Your task to perform on an android device: Show the shopping cart on bestbuy. Search for asus rog on bestbuy, select the first entry, and add it to the cart. Image 0: 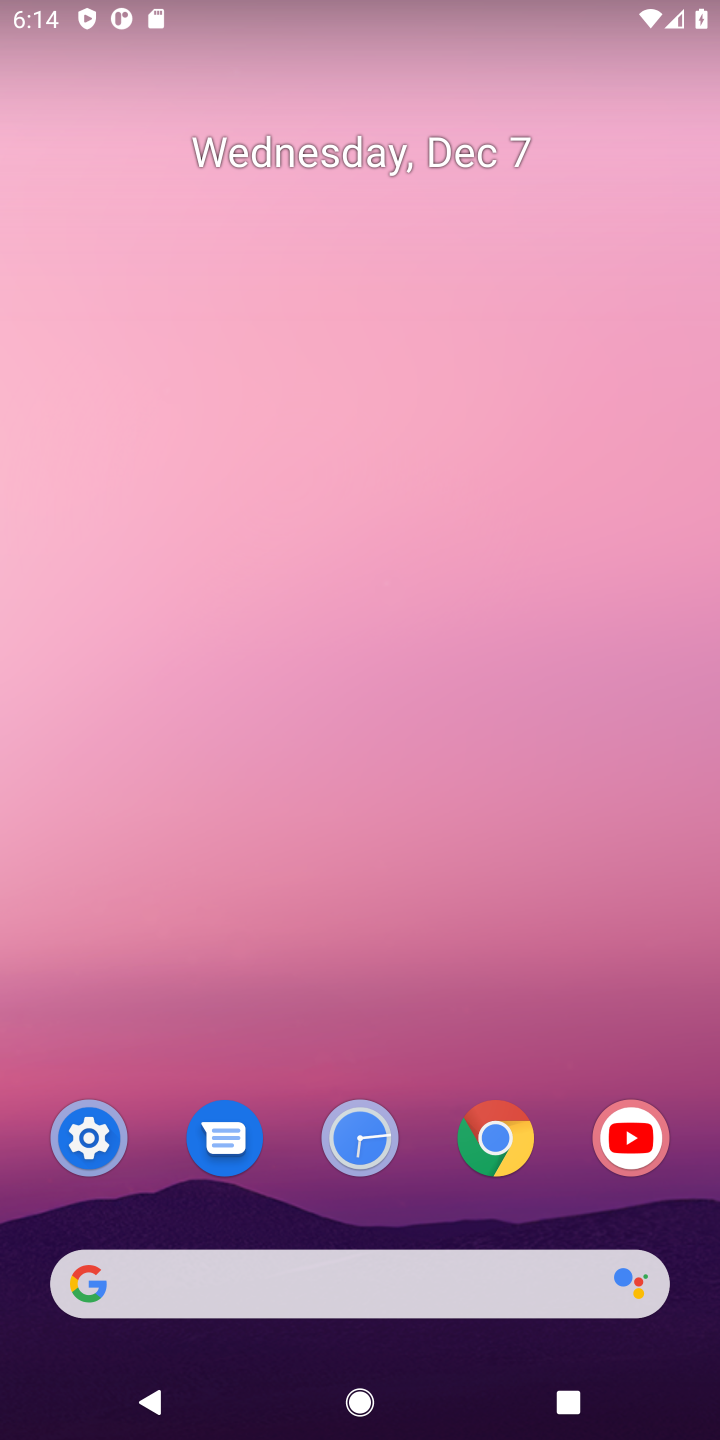
Step 0: press home button
Your task to perform on an android device: Show the shopping cart on bestbuy. Search for asus rog on bestbuy, select the first entry, and add it to the cart. Image 1: 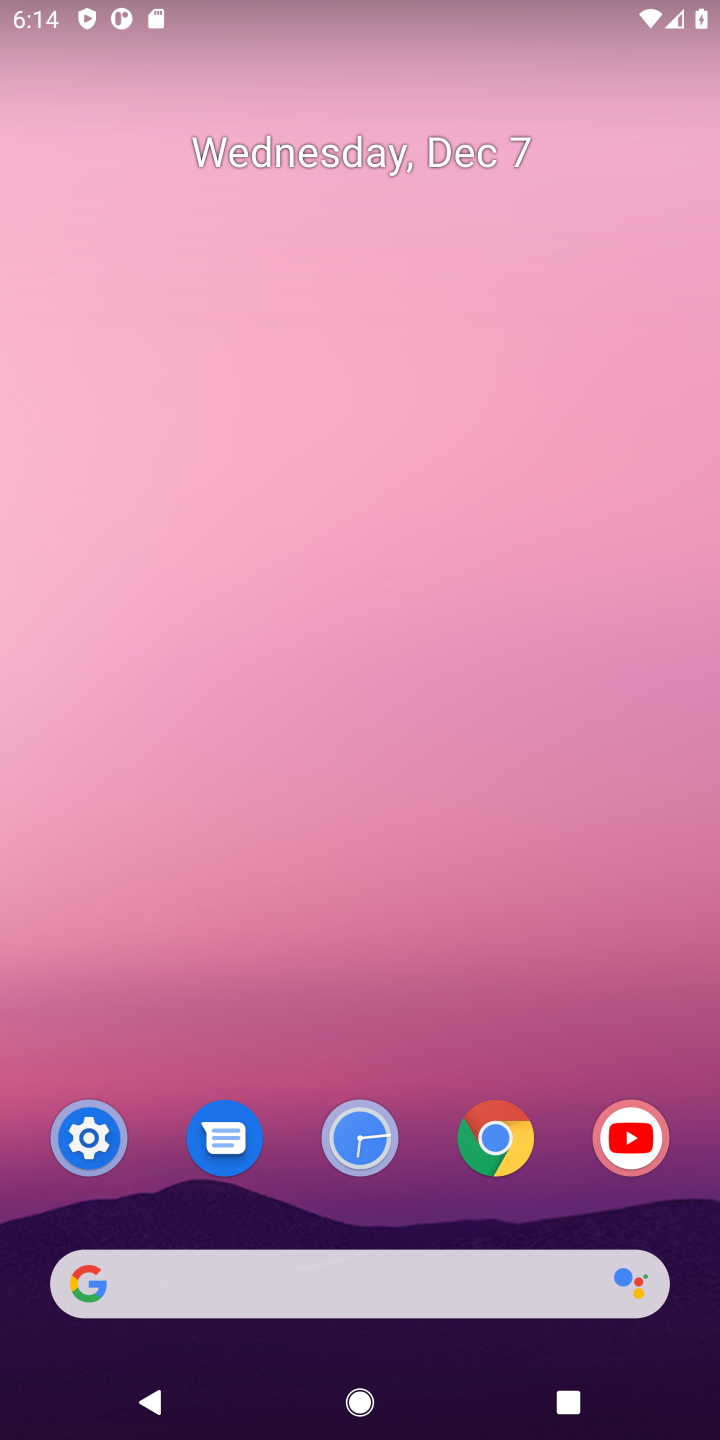
Step 1: click (162, 1282)
Your task to perform on an android device: Show the shopping cart on bestbuy. Search for asus rog on bestbuy, select the first entry, and add it to the cart. Image 2: 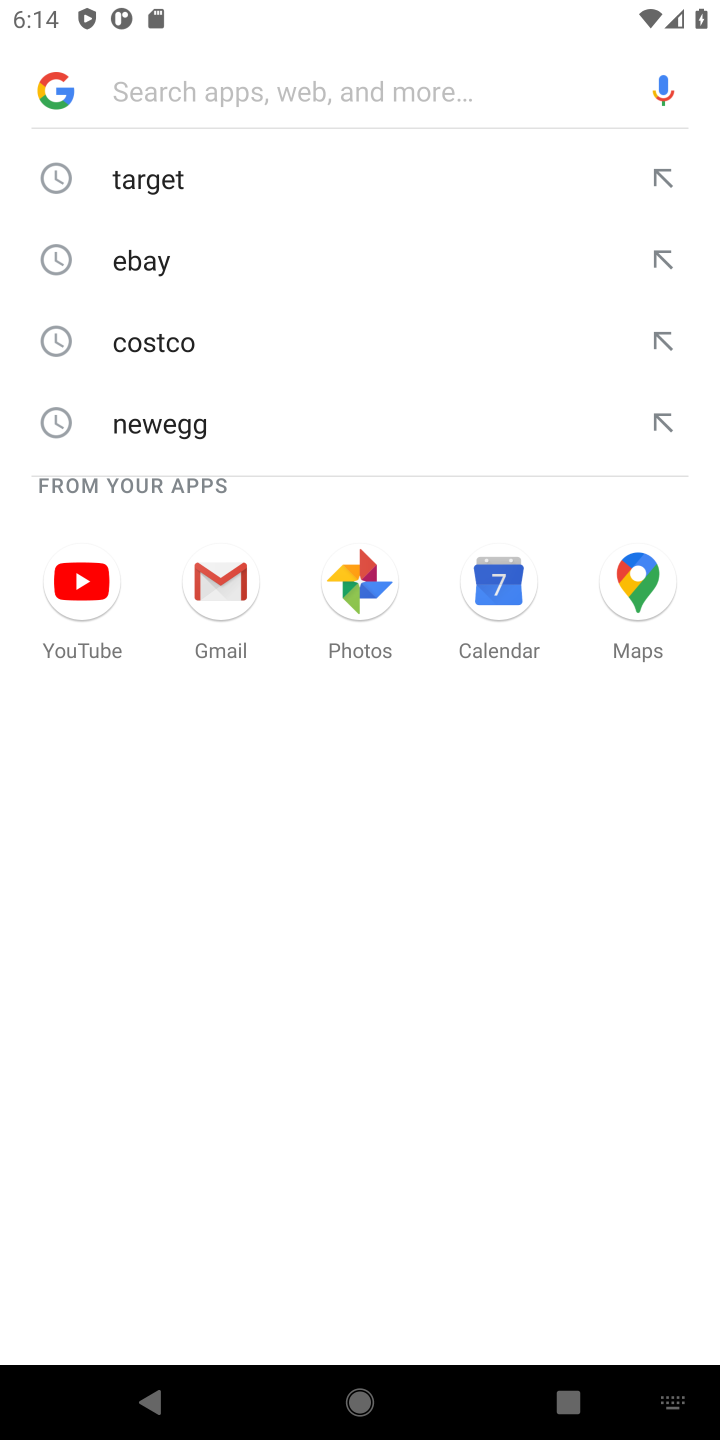
Step 2: type "bestbuy"
Your task to perform on an android device: Show the shopping cart on bestbuy. Search for asus rog on bestbuy, select the first entry, and add it to the cart. Image 3: 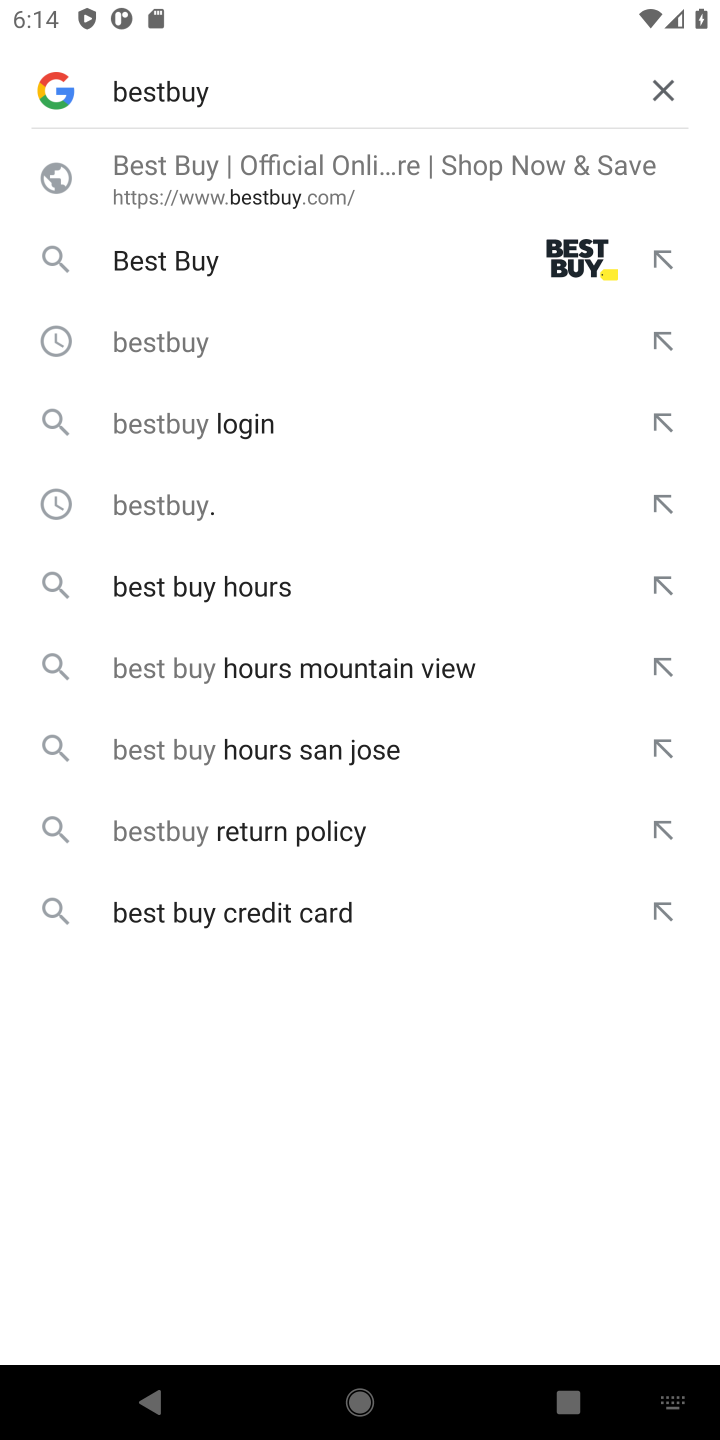
Step 3: press enter
Your task to perform on an android device: Show the shopping cart on bestbuy. Search for asus rog on bestbuy, select the first entry, and add it to the cart. Image 4: 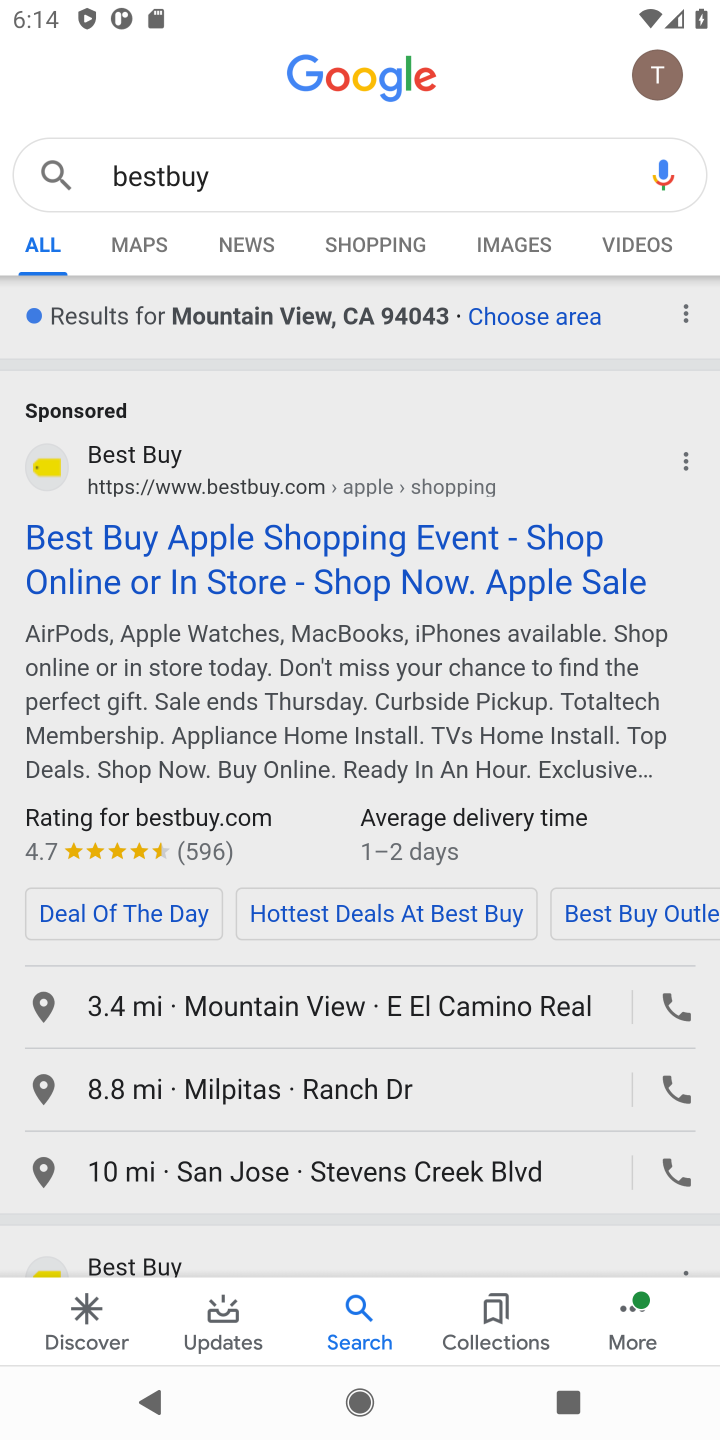
Step 4: click (374, 552)
Your task to perform on an android device: Show the shopping cart on bestbuy. Search for asus rog on bestbuy, select the first entry, and add it to the cart. Image 5: 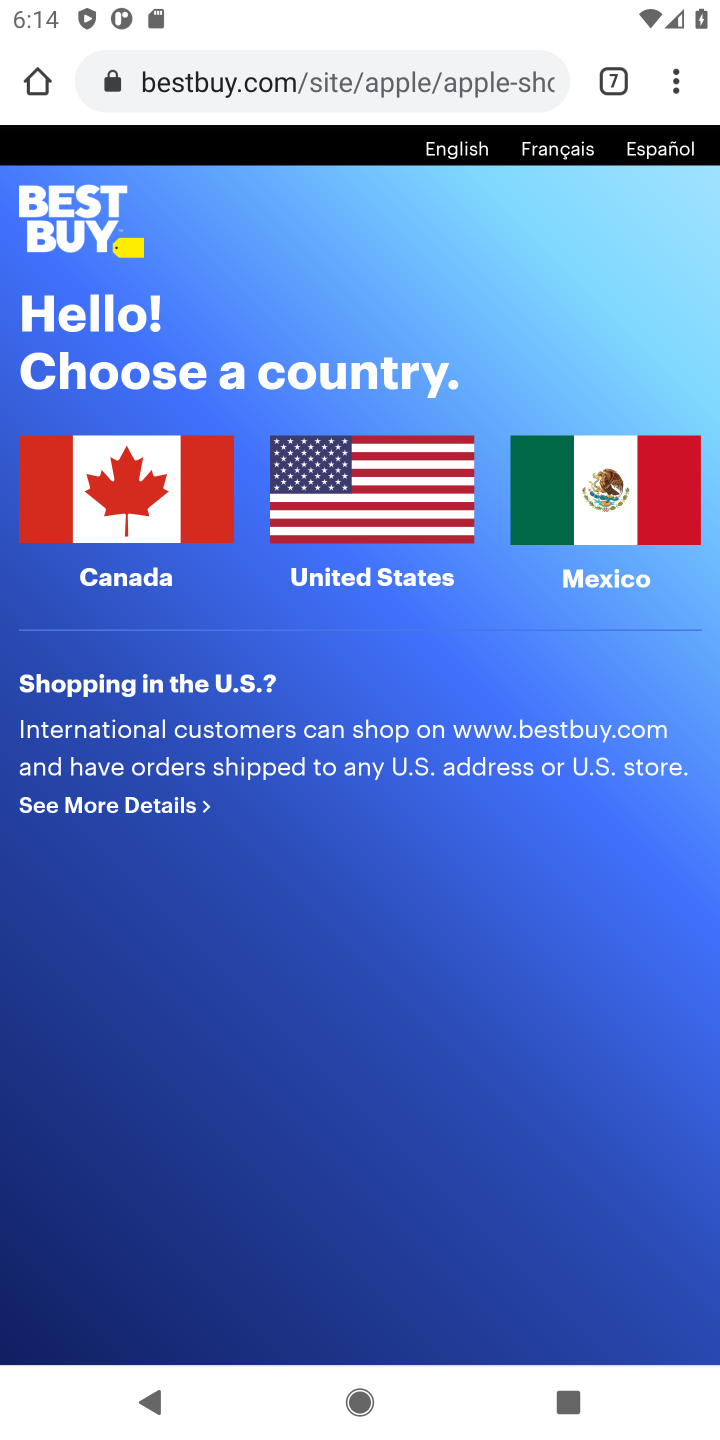
Step 5: click (113, 516)
Your task to perform on an android device: Show the shopping cart on bestbuy. Search for asus rog on bestbuy, select the first entry, and add it to the cart. Image 6: 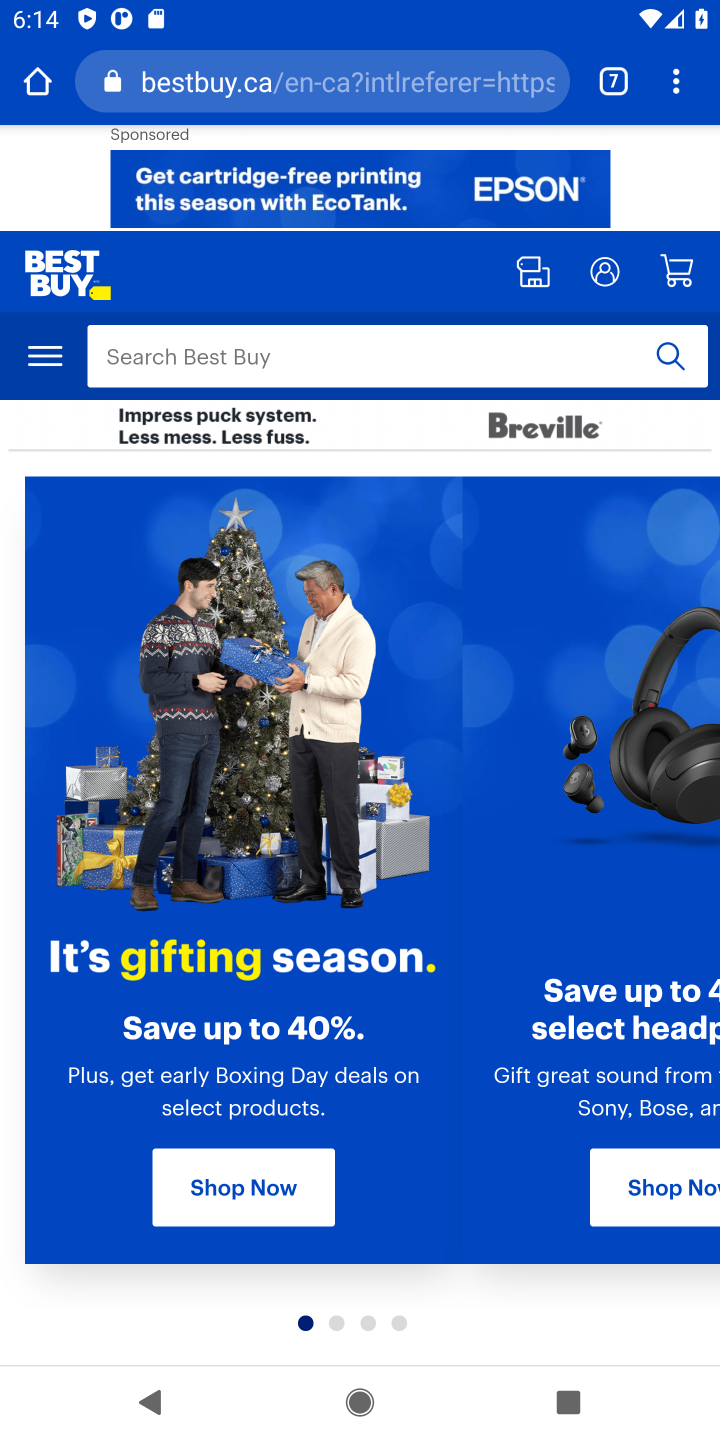
Step 6: click (667, 259)
Your task to perform on an android device: Show the shopping cart on bestbuy. Search for asus rog on bestbuy, select the first entry, and add it to the cart. Image 7: 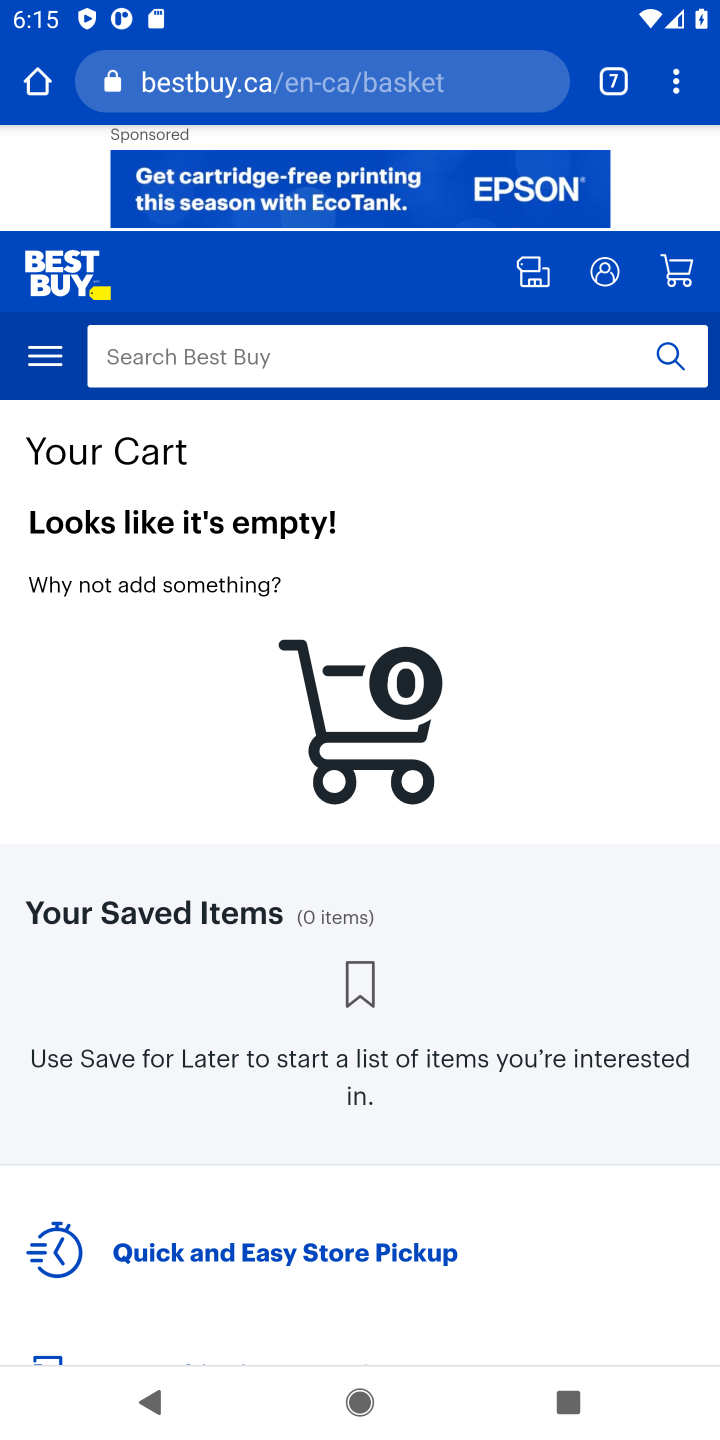
Step 7: click (373, 368)
Your task to perform on an android device: Show the shopping cart on bestbuy. Search for asus rog on bestbuy, select the first entry, and add it to the cart. Image 8: 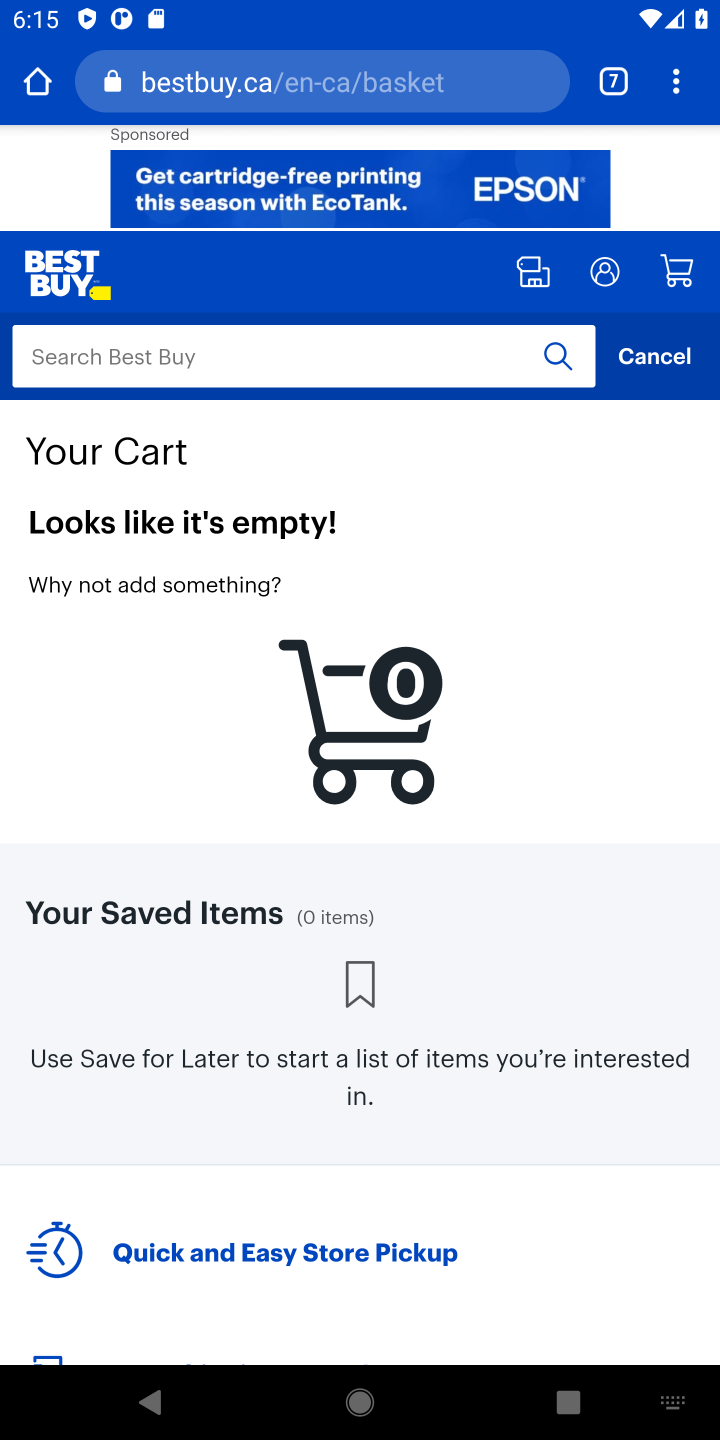
Step 8: type "asus rog"
Your task to perform on an android device: Show the shopping cart on bestbuy. Search for asus rog on bestbuy, select the first entry, and add it to the cart. Image 9: 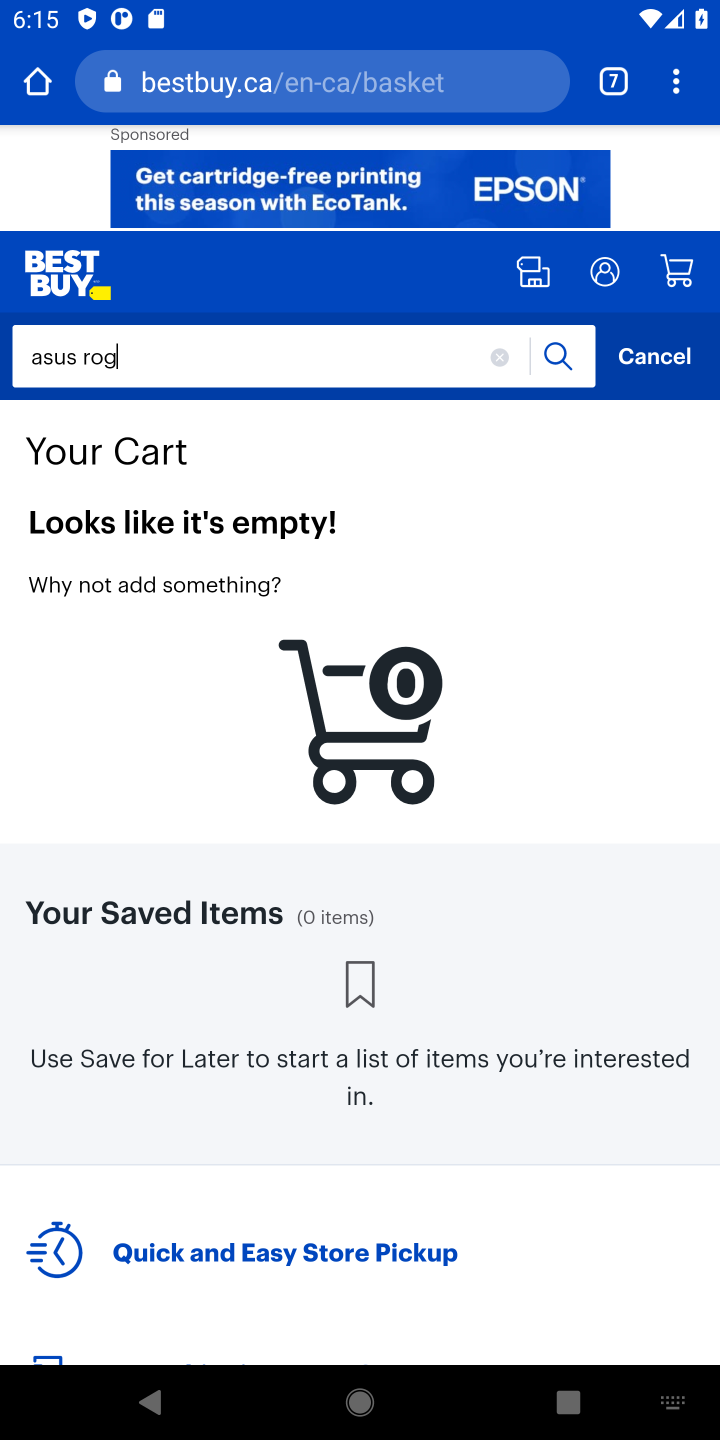
Step 9: press enter
Your task to perform on an android device: Show the shopping cart on bestbuy. Search for asus rog on bestbuy, select the first entry, and add it to the cart. Image 10: 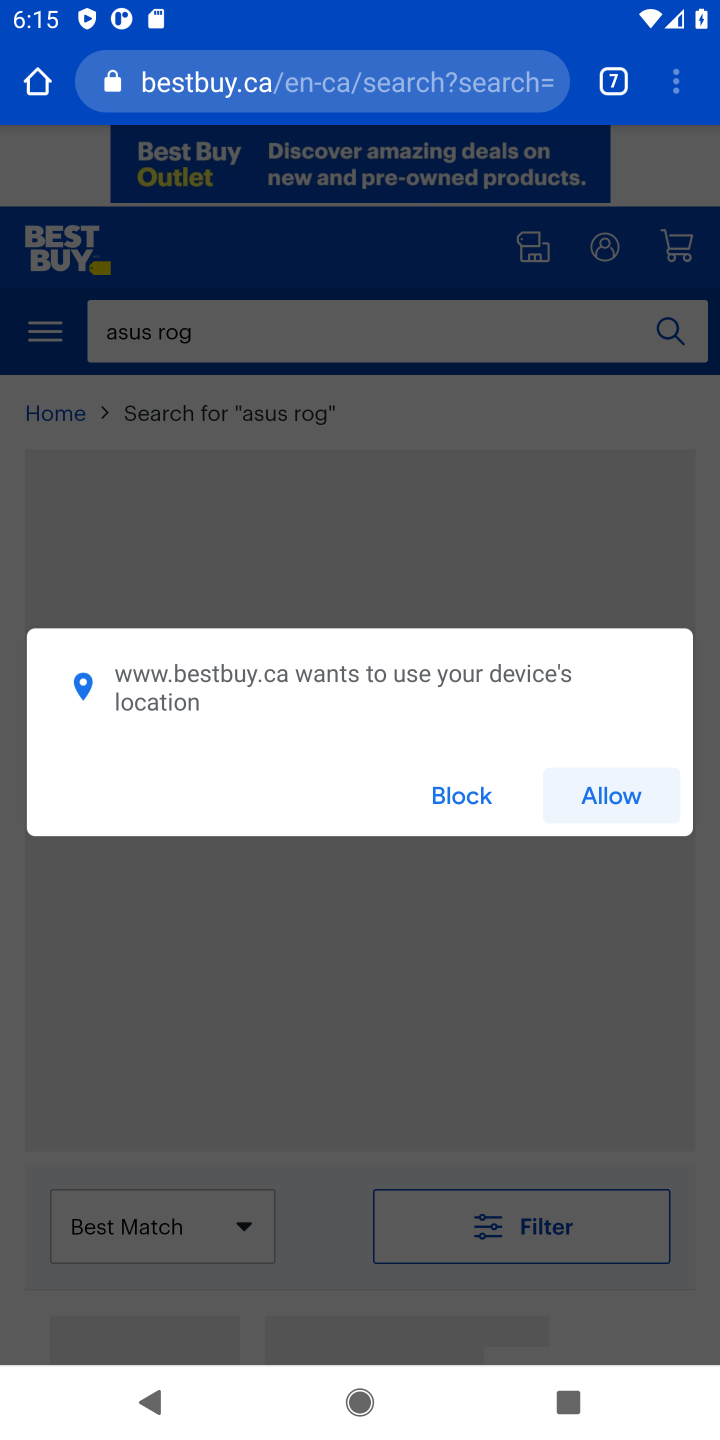
Step 10: click (419, 803)
Your task to perform on an android device: Show the shopping cart on bestbuy. Search for asus rog on bestbuy, select the first entry, and add it to the cart. Image 11: 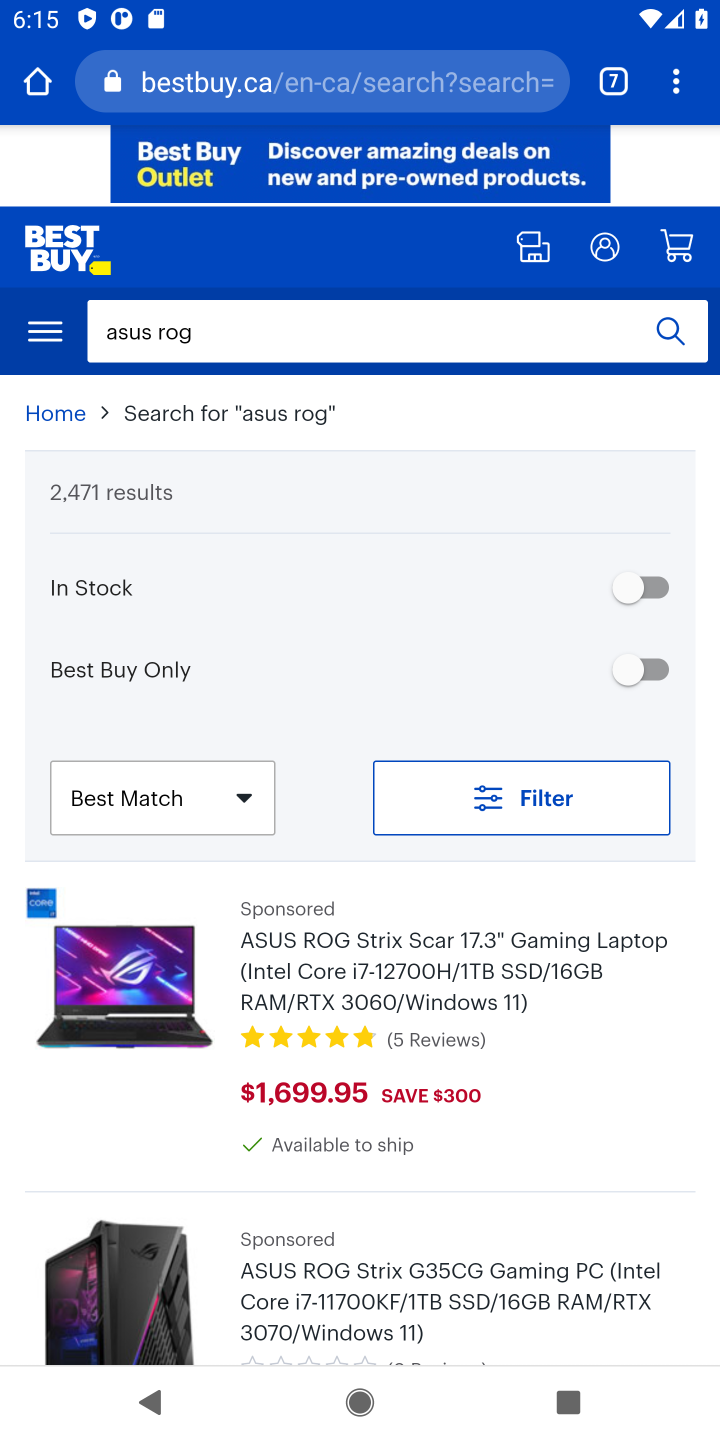
Step 11: drag from (465, 1094) to (532, 662)
Your task to perform on an android device: Show the shopping cart on bestbuy. Search for asus rog on bestbuy, select the first entry, and add it to the cart. Image 12: 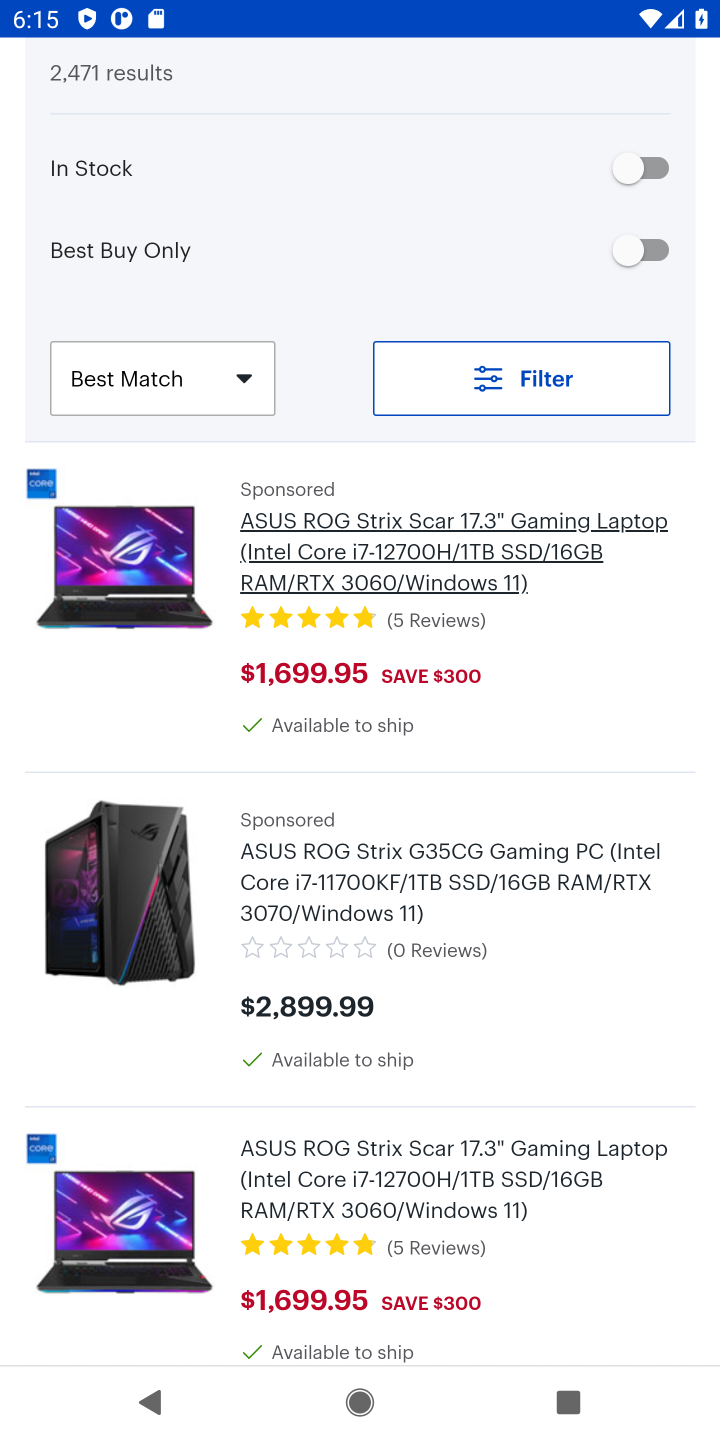
Step 12: click (358, 546)
Your task to perform on an android device: Show the shopping cart on bestbuy. Search for asus rog on bestbuy, select the first entry, and add it to the cart. Image 13: 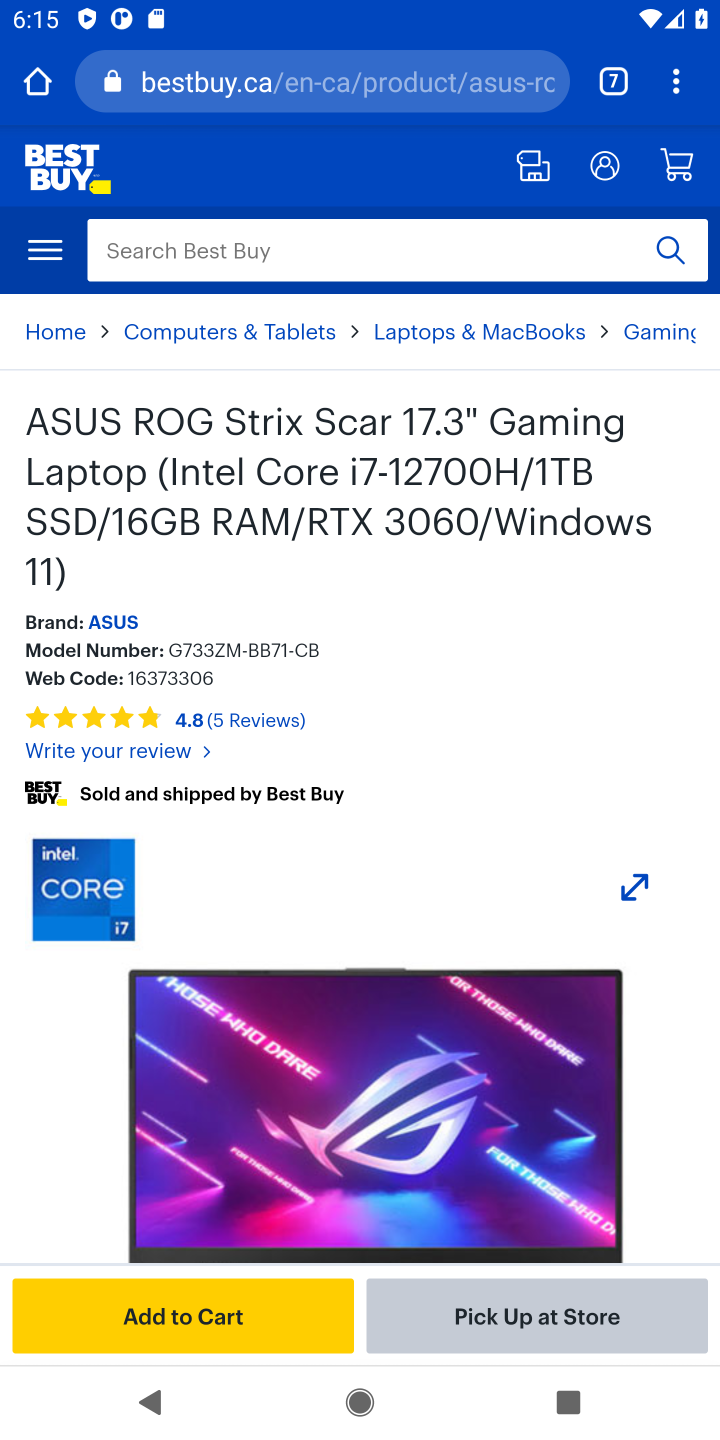
Step 13: click (194, 1320)
Your task to perform on an android device: Show the shopping cart on bestbuy. Search for asus rog on bestbuy, select the first entry, and add it to the cart. Image 14: 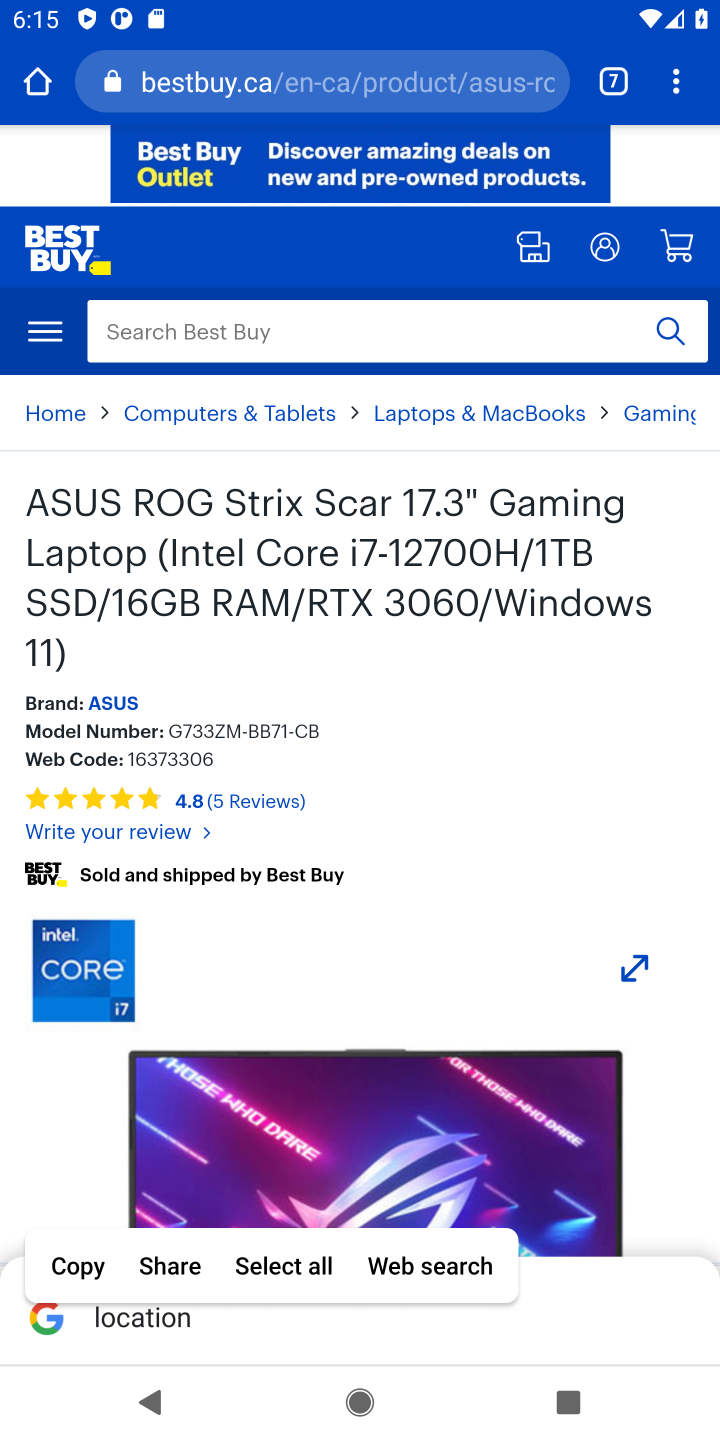
Step 14: drag from (506, 997) to (558, 496)
Your task to perform on an android device: Show the shopping cart on bestbuy. Search for asus rog on bestbuy, select the first entry, and add it to the cart. Image 15: 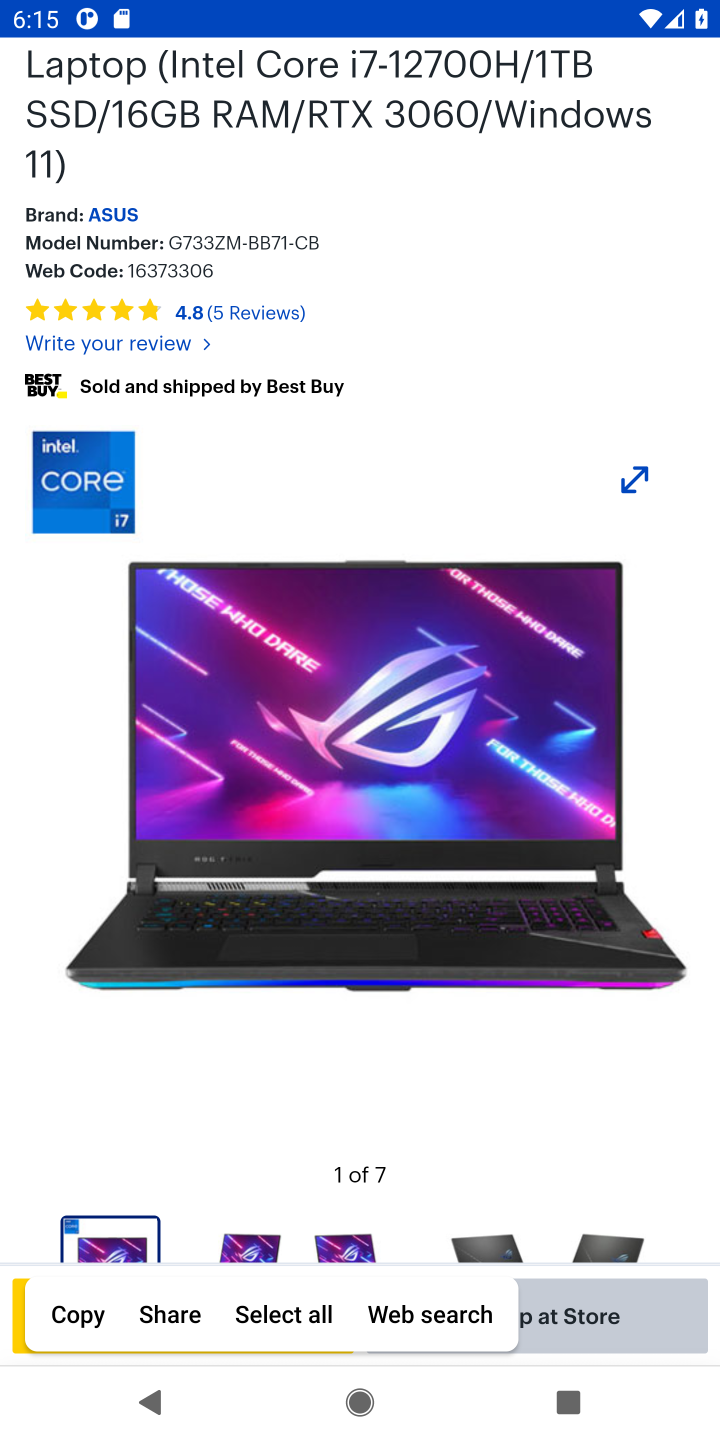
Step 15: drag from (183, 989) to (254, 677)
Your task to perform on an android device: Show the shopping cart on bestbuy. Search for asus rog on bestbuy, select the first entry, and add it to the cart. Image 16: 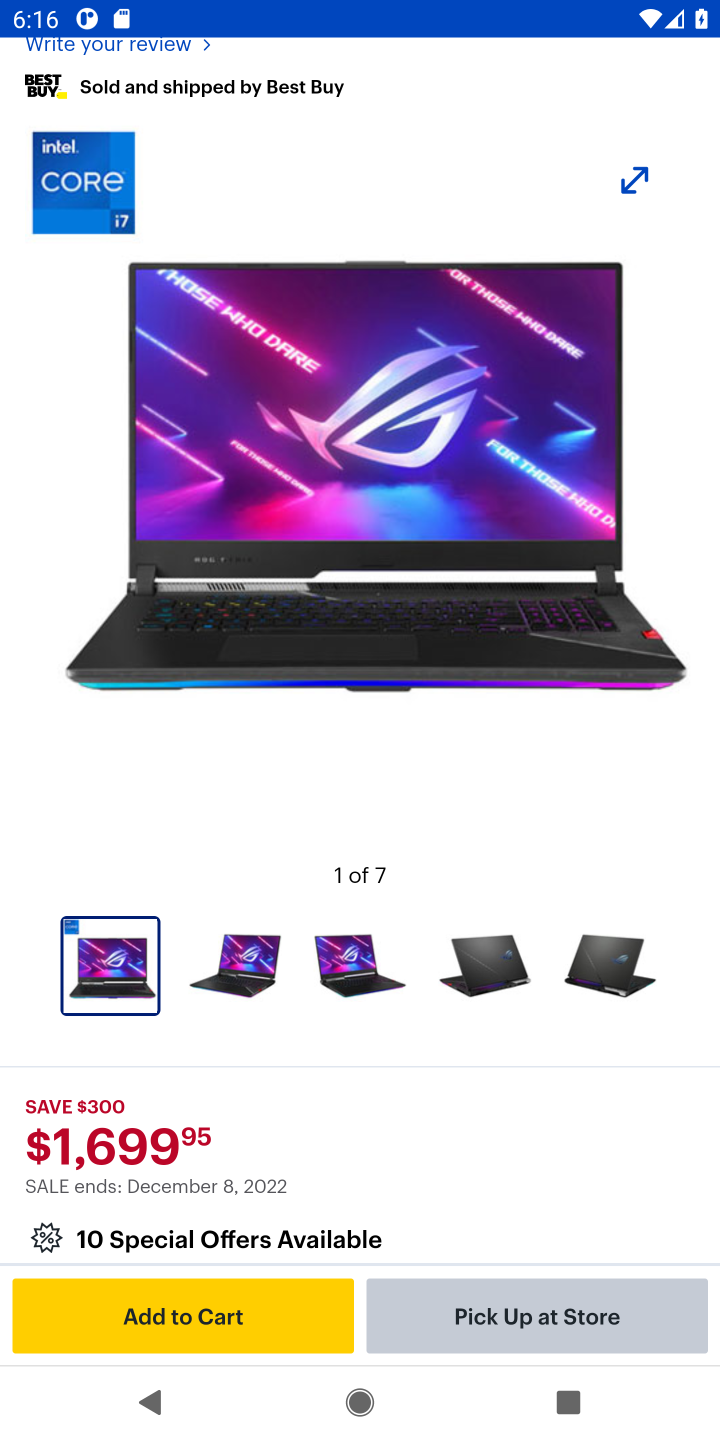
Step 16: click (174, 1308)
Your task to perform on an android device: Show the shopping cart on bestbuy. Search for asus rog on bestbuy, select the first entry, and add it to the cart. Image 17: 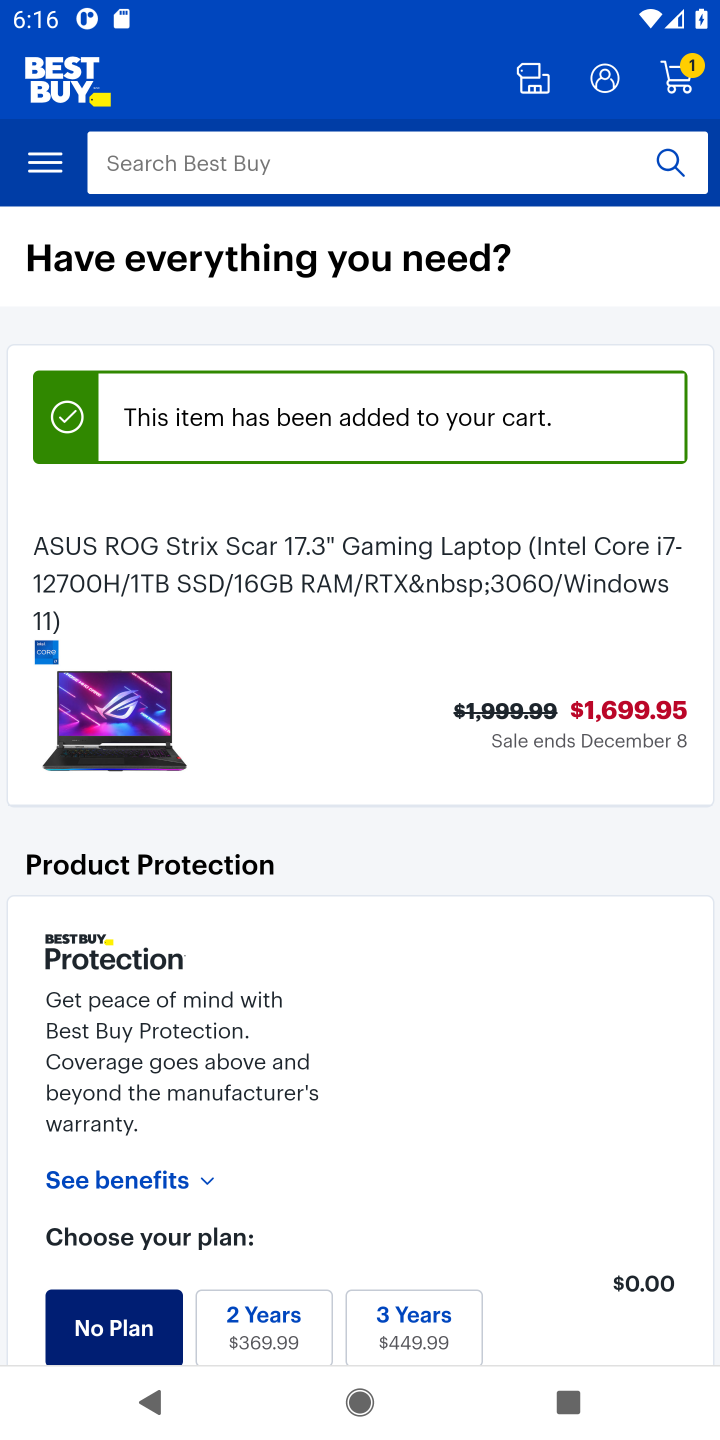
Step 17: task complete